Your task to perform on an android device: Open Android settings Image 0: 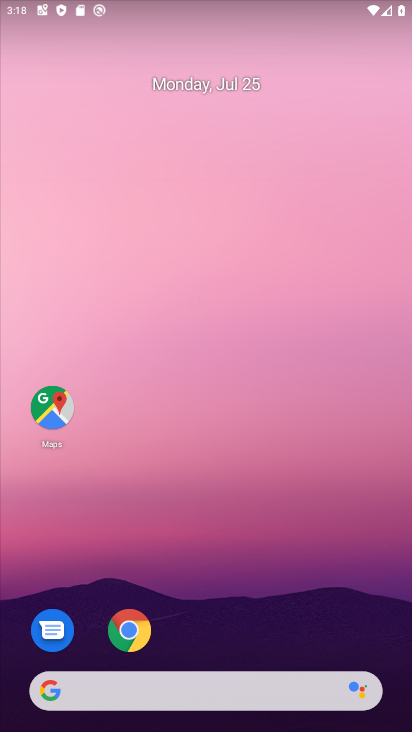
Step 0: drag from (202, 706) to (243, 139)
Your task to perform on an android device: Open Android settings Image 1: 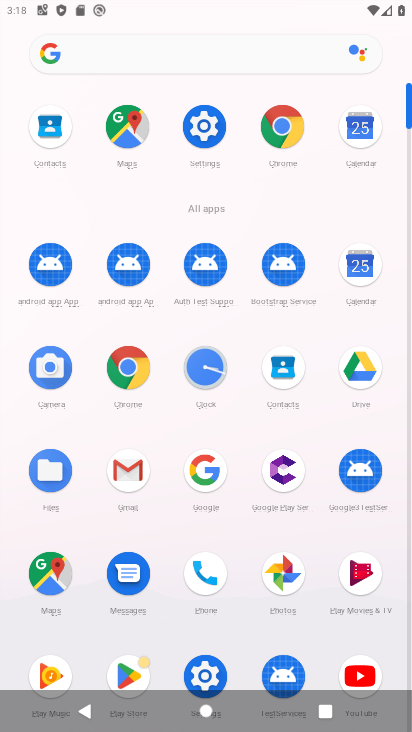
Step 1: click (186, 142)
Your task to perform on an android device: Open Android settings Image 2: 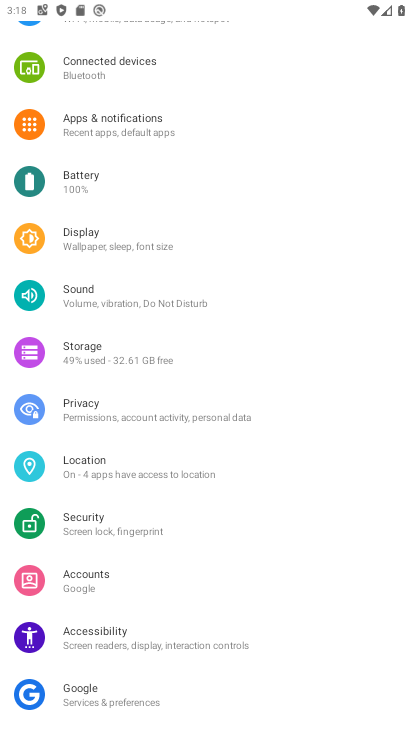
Step 2: task complete